Your task to perform on an android device: clear all cookies in the chrome app Image 0: 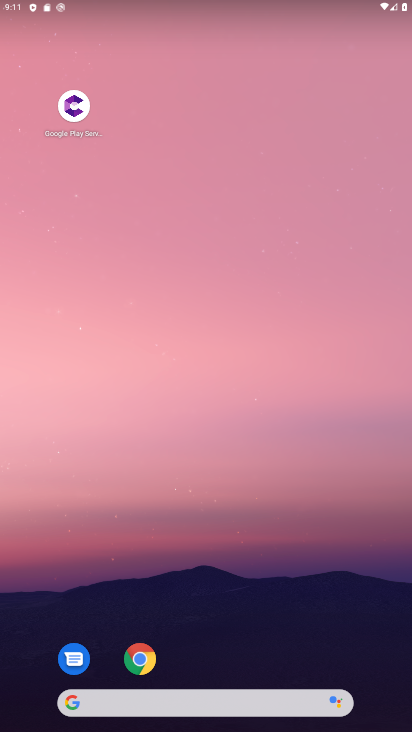
Step 0: drag from (284, 602) to (186, 110)
Your task to perform on an android device: clear all cookies in the chrome app Image 1: 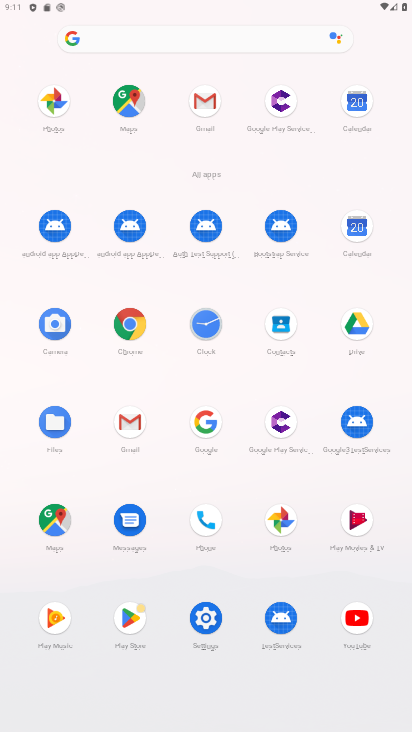
Step 1: click (201, 103)
Your task to perform on an android device: clear all cookies in the chrome app Image 2: 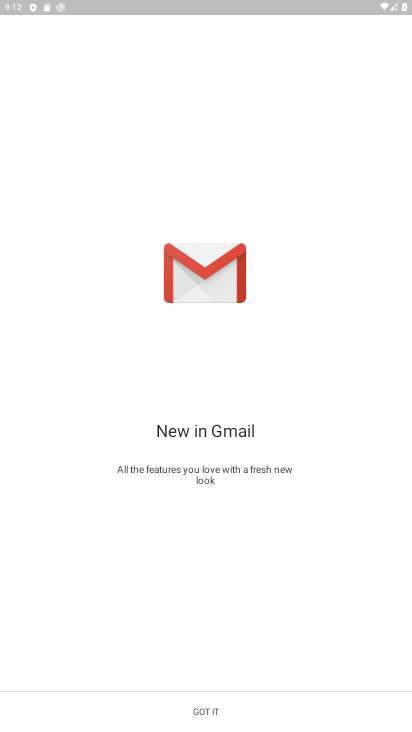
Step 2: press home button
Your task to perform on an android device: clear all cookies in the chrome app Image 3: 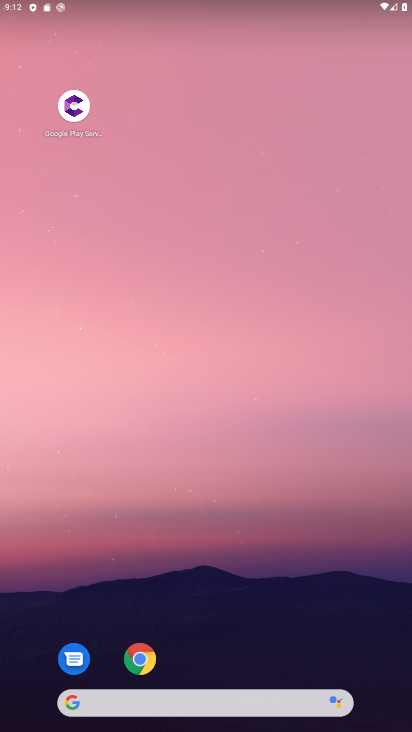
Step 3: drag from (230, 692) to (123, 112)
Your task to perform on an android device: clear all cookies in the chrome app Image 4: 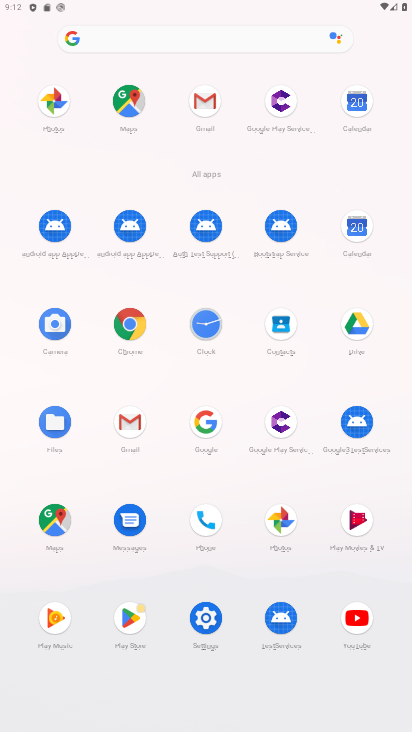
Step 4: click (131, 328)
Your task to perform on an android device: clear all cookies in the chrome app Image 5: 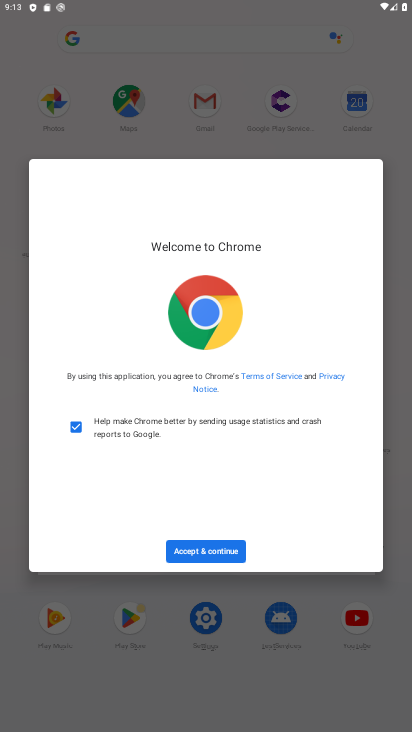
Step 5: click (209, 548)
Your task to perform on an android device: clear all cookies in the chrome app Image 6: 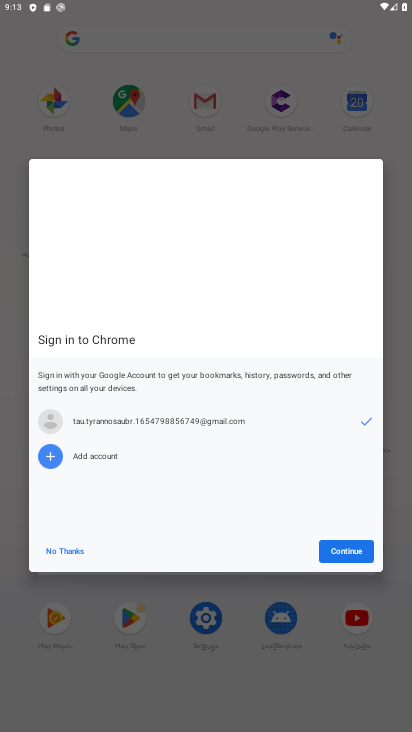
Step 6: click (341, 550)
Your task to perform on an android device: clear all cookies in the chrome app Image 7: 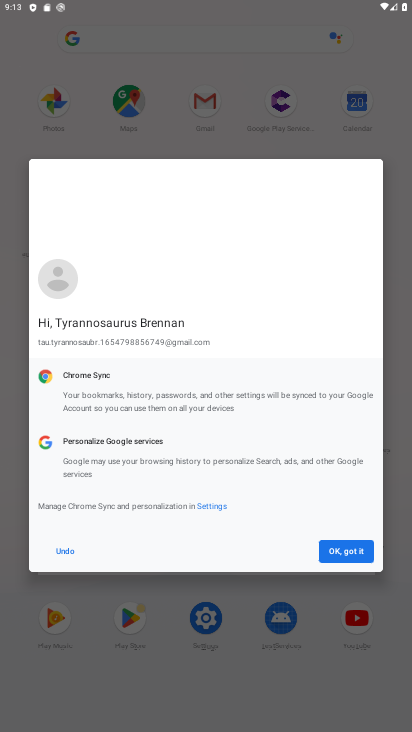
Step 7: click (341, 550)
Your task to perform on an android device: clear all cookies in the chrome app Image 8: 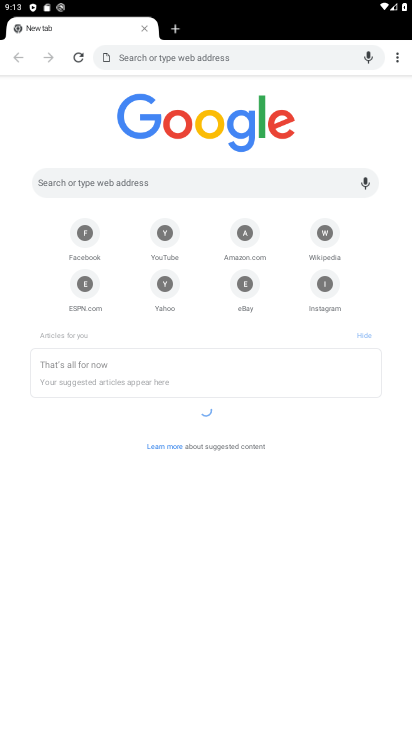
Step 8: drag from (405, 56) to (283, 169)
Your task to perform on an android device: clear all cookies in the chrome app Image 9: 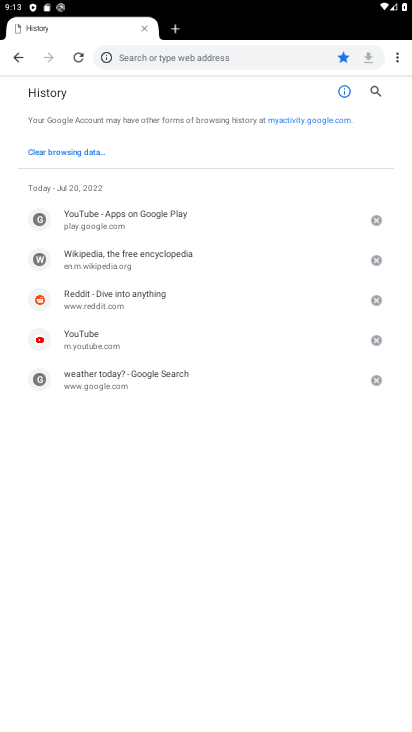
Step 9: click (84, 150)
Your task to perform on an android device: clear all cookies in the chrome app Image 10: 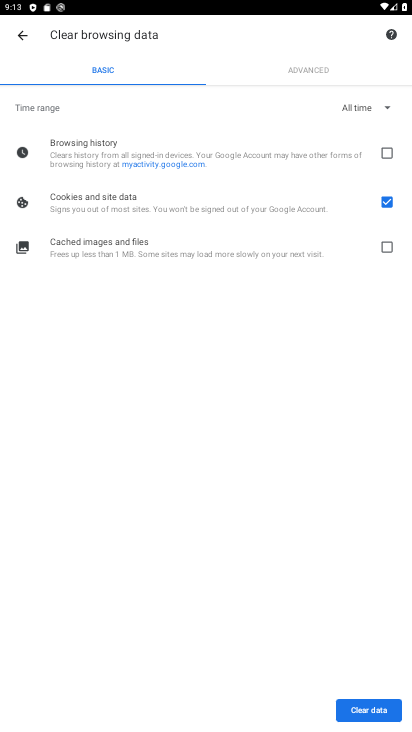
Step 10: click (388, 706)
Your task to perform on an android device: clear all cookies in the chrome app Image 11: 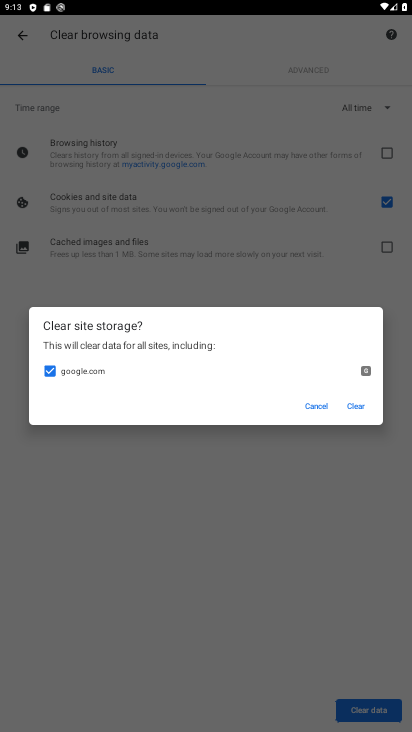
Step 11: click (346, 408)
Your task to perform on an android device: clear all cookies in the chrome app Image 12: 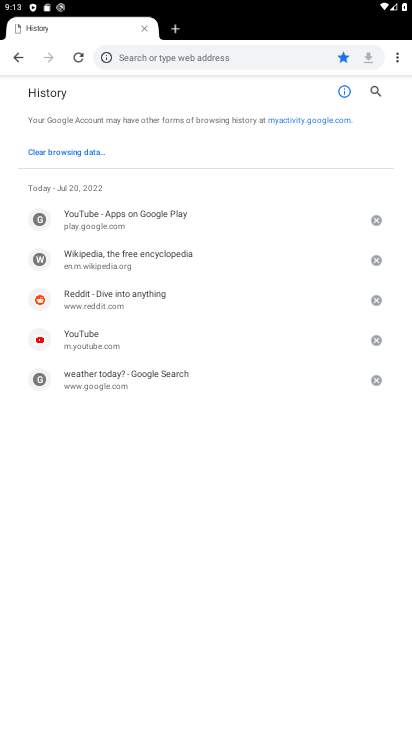
Step 12: task complete